Your task to perform on an android device: Go to wifi settings Image 0: 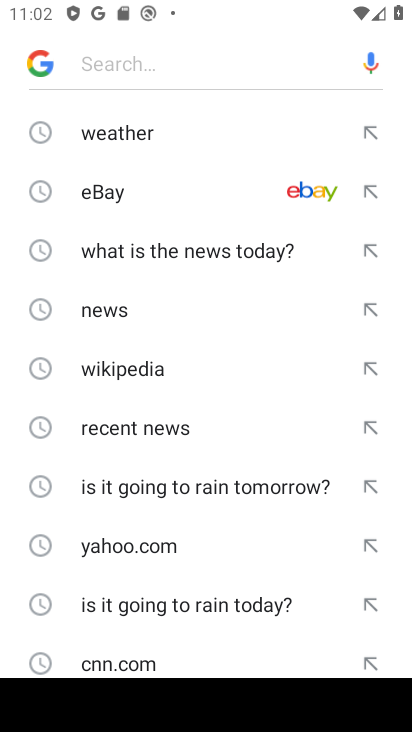
Step 0: press home button
Your task to perform on an android device: Go to wifi settings Image 1: 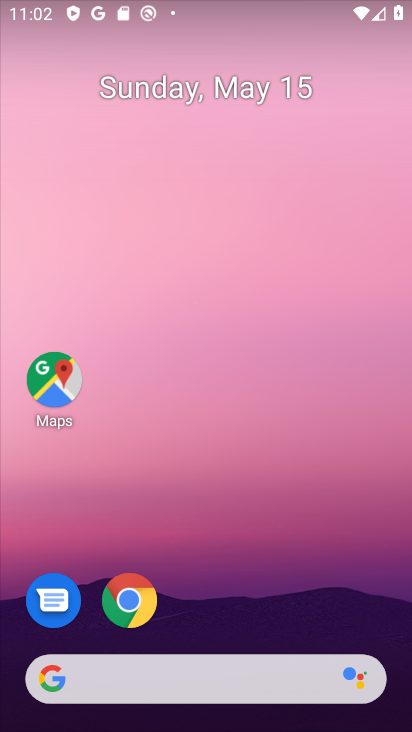
Step 1: drag from (209, 658) to (225, 22)
Your task to perform on an android device: Go to wifi settings Image 2: 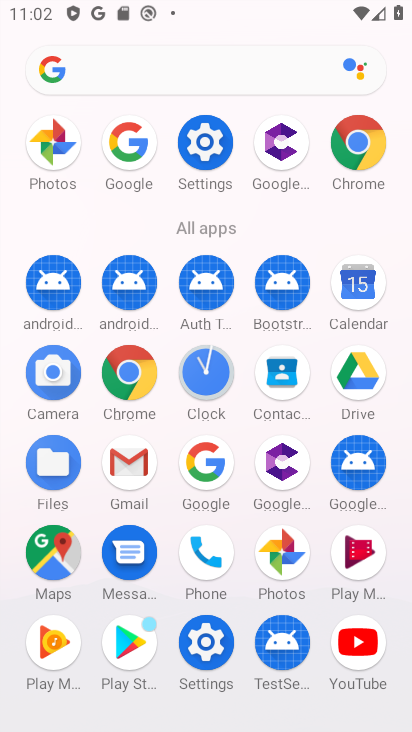
Step 2: click (192, 157)
Your task to perform on an android device: Go to wifi settings Image 3: 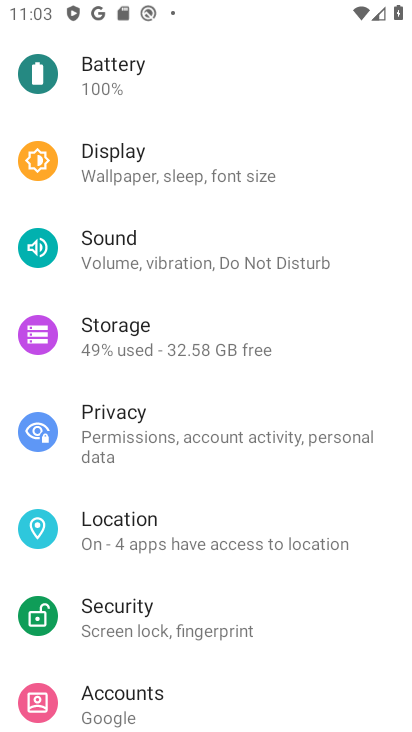
Step 3: drag from (135, 129) to (143, 600)
Your task to perform on an android device: Go to wifi settings Image 4: 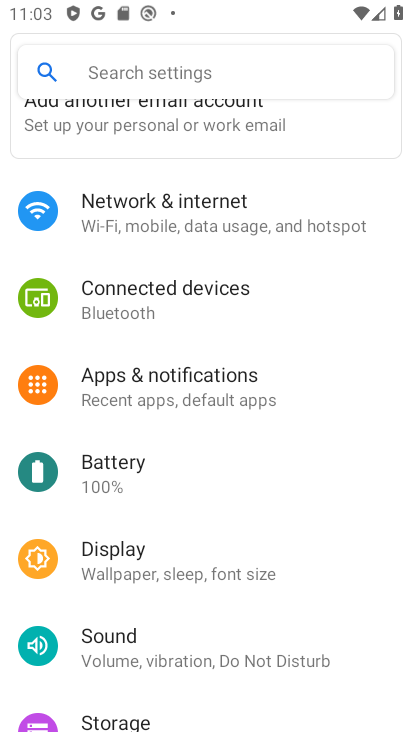
Step 4: click (142, 220)
Your task to perform on an android device: Go to wifi settings Image 5: 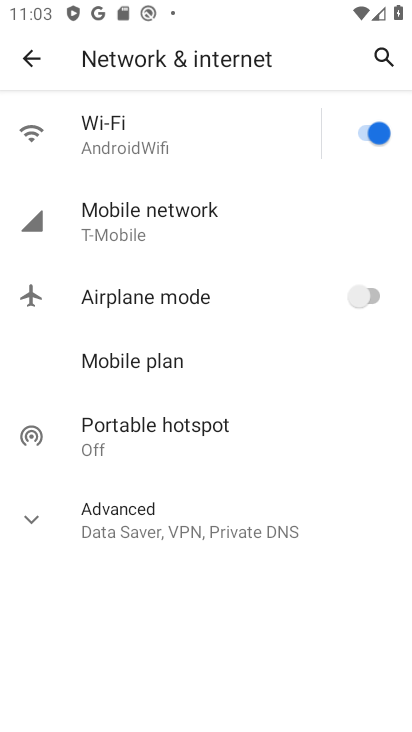
Step 5: click (133, 146)
Your task to perform on an android device: Go to wifi settings Image 6: 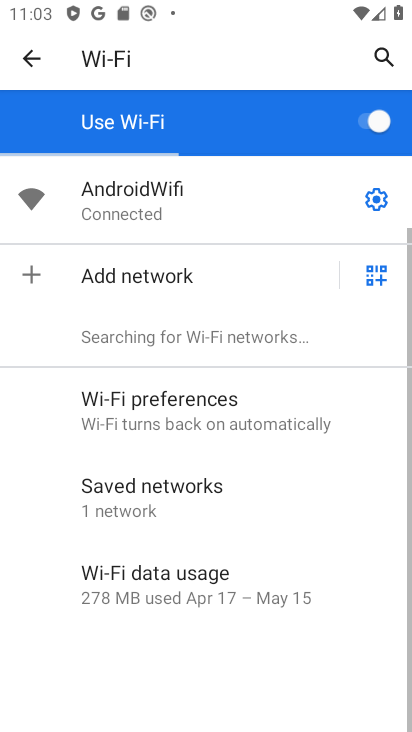
Step 6: task complete